Your task to perform on an android device: Set an alarm for 11am Image 0: 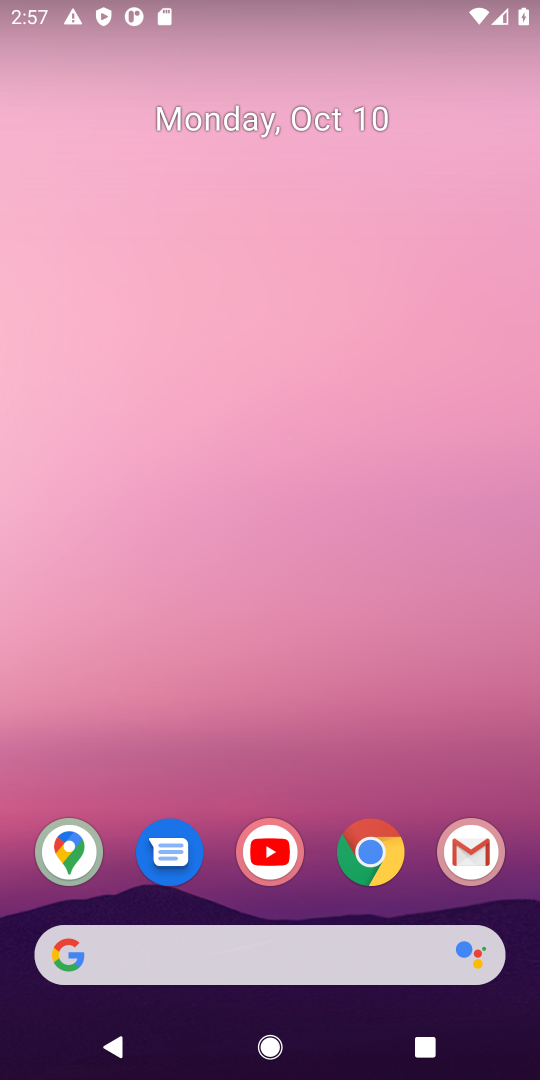
Step 0: drag from (292, 672) to (313, 217)
Your task to perform on an android device: Set an alarm for 11am Image 1: 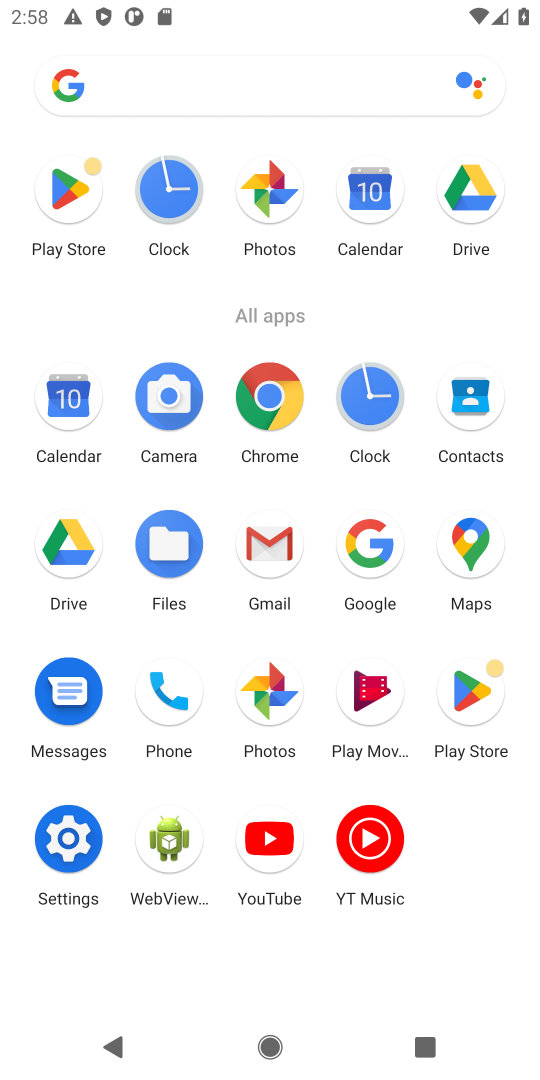
Step 1: click (165, 179)
Your task to perform on an android device: Set an alarm for 11am Image 2: 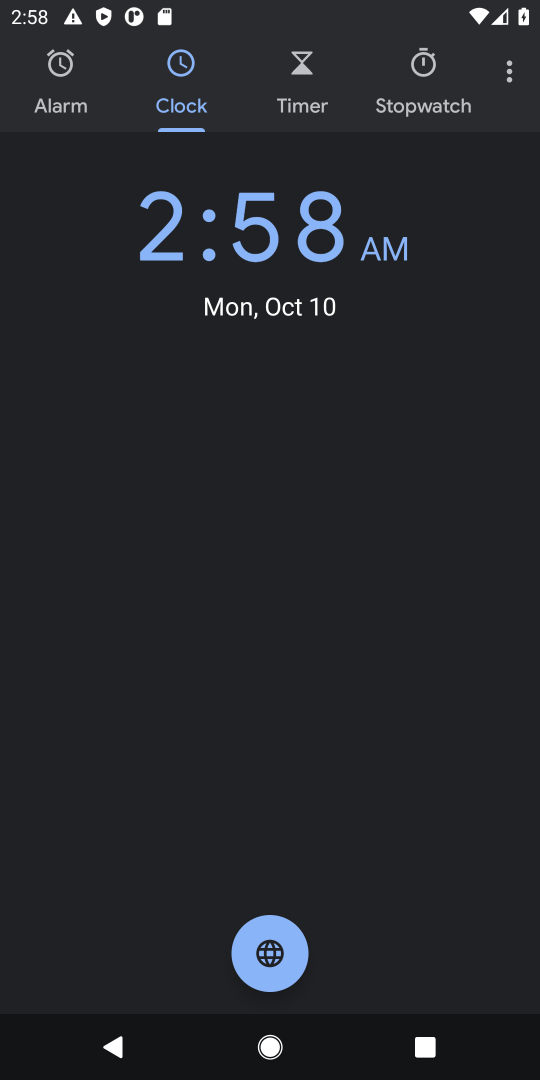
Step 2: click (67, 77)
Your task to perform on an android device: Set an alarm for 11am Image 3: 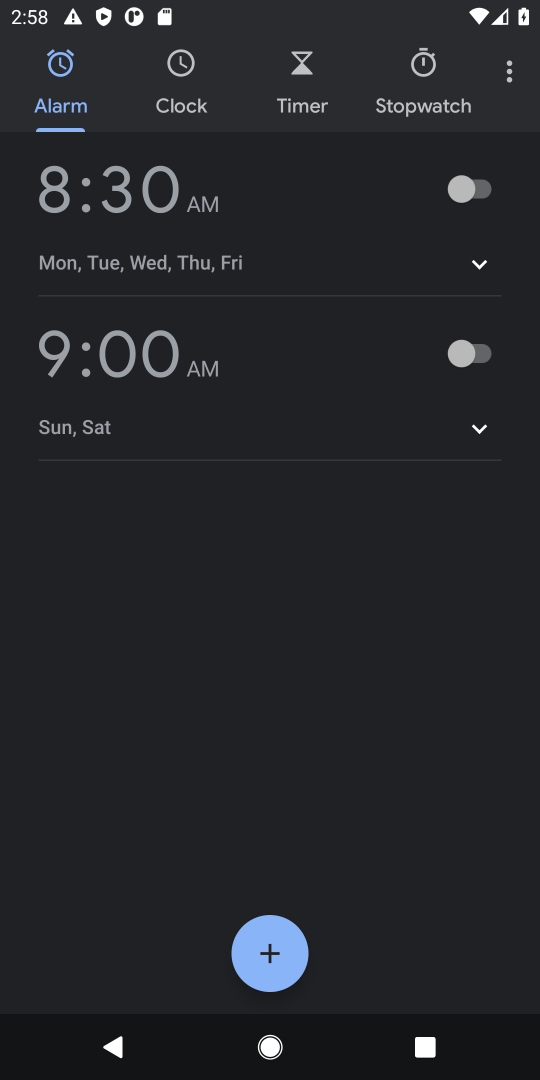
Step 3: click (135, 332)
Your task to perform on an android device: Set an alarm for 11am Image 4: 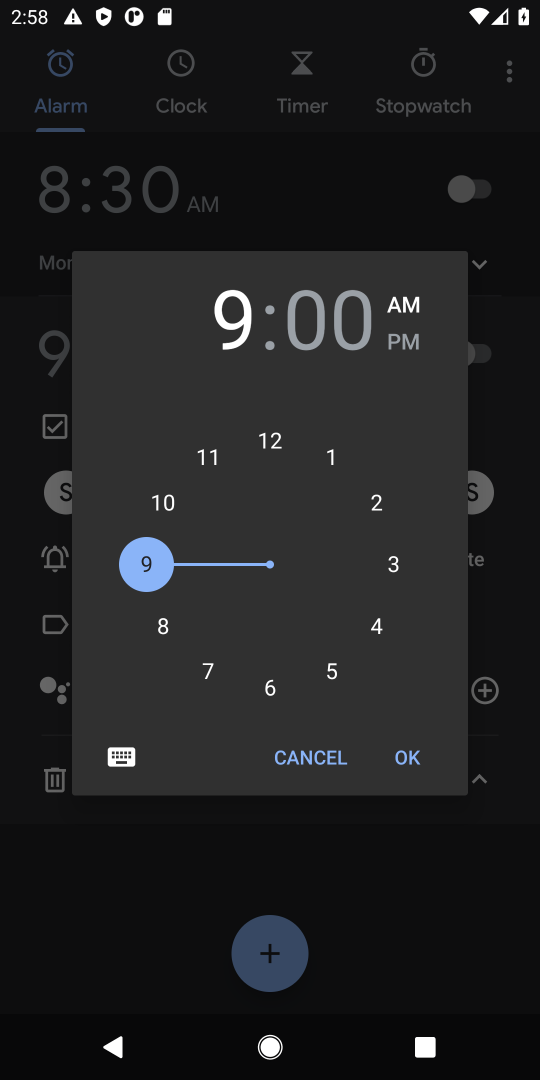
Step 4: click (224, 450)
Your task to perform on an android device: Set an alarm for 11am Image 5: 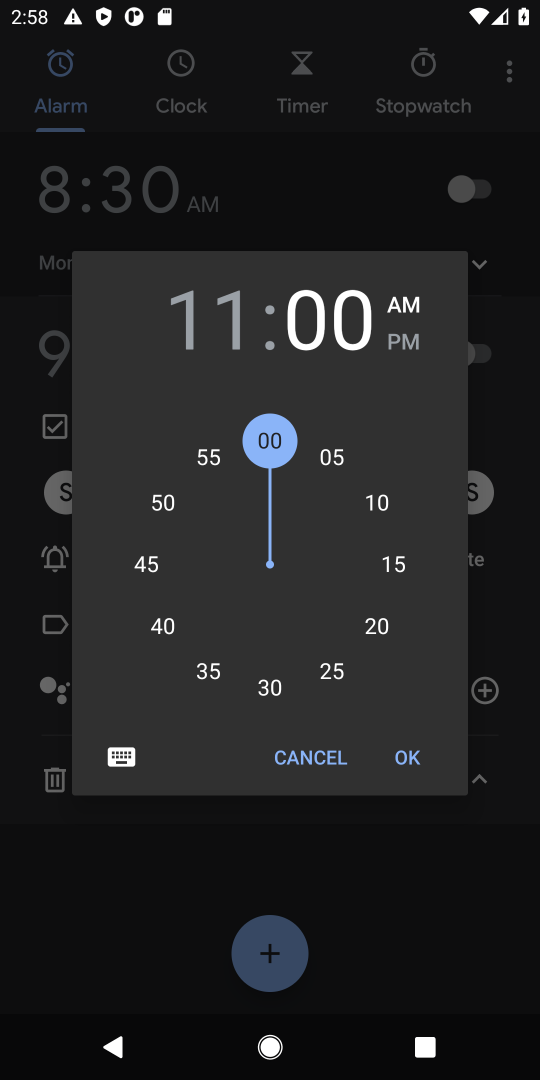
Step 5: click (280, 430)
Your task to perform on an android device: Set an alarm for 11am Image 6: 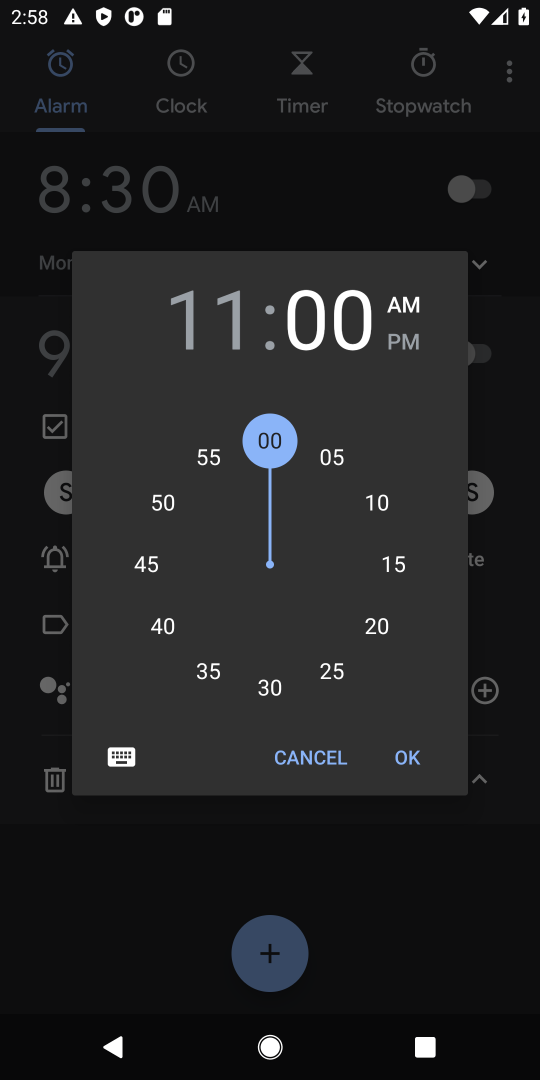
Step 6: click (394, 754)
Your task to perform on an android device: Set an alarm for 11am Image 7: 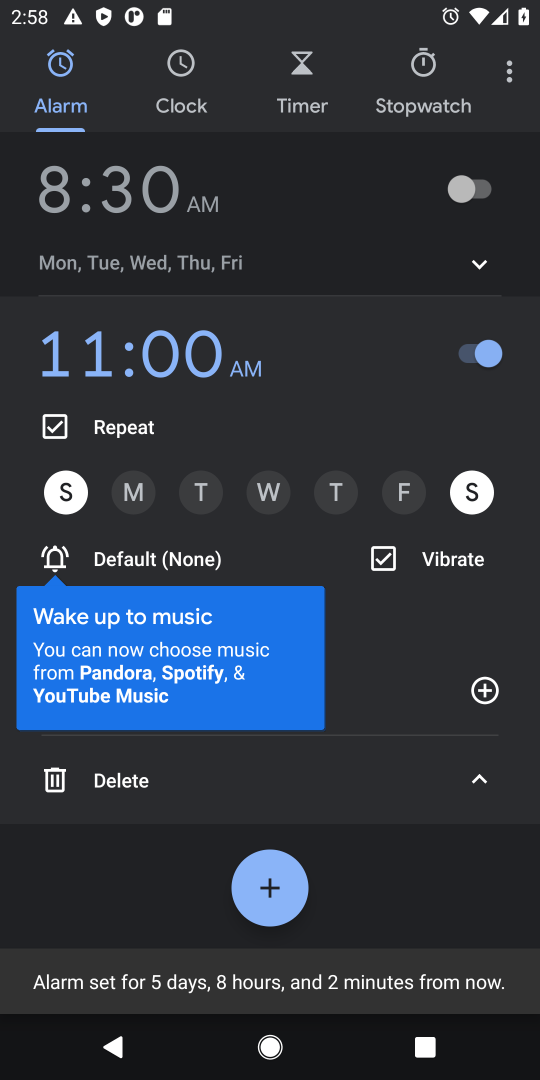
Step 7: task complete